Your task to perform on an android device: Open Google Chrome and click the shortcut for Amazon.com Image 0: 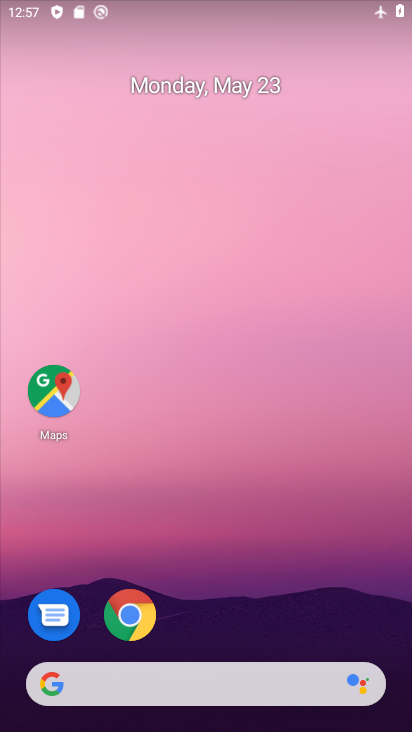
Step 0: click (166, 601)
Your task to perform on an android device: Open Google Chrome and click the shortcut for Amazon.com Image 1: 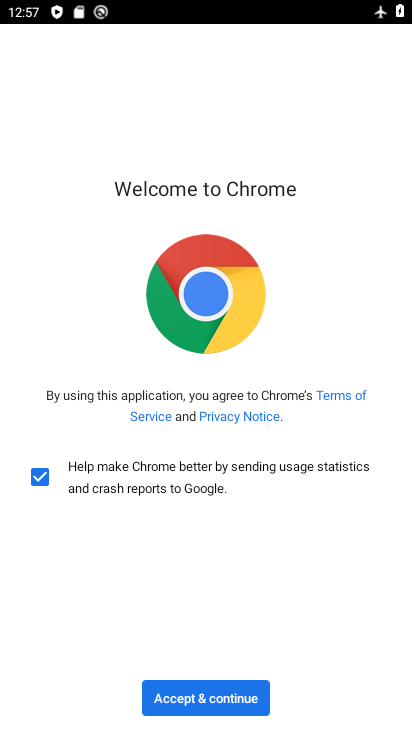
Step 1: click (165, 706)
Your task to perform on an android device: Open Google Chrome and click the shortcut for Amazon.com Image 2: 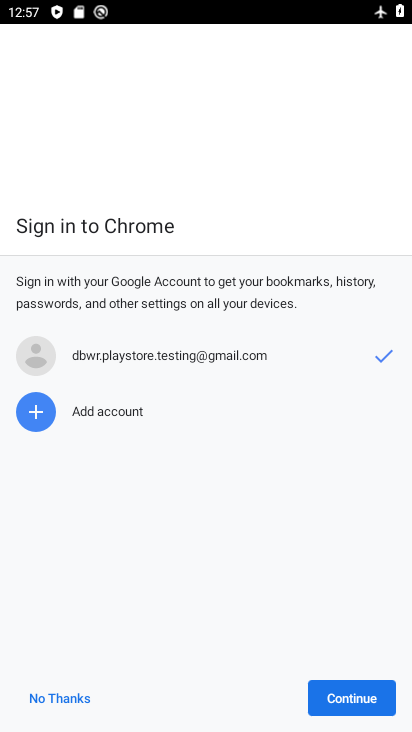
Step 2: click (345, 699)
Your task to perform on an android device: Open Google Chrome and click the shortcut for Amazon.com Image 3: 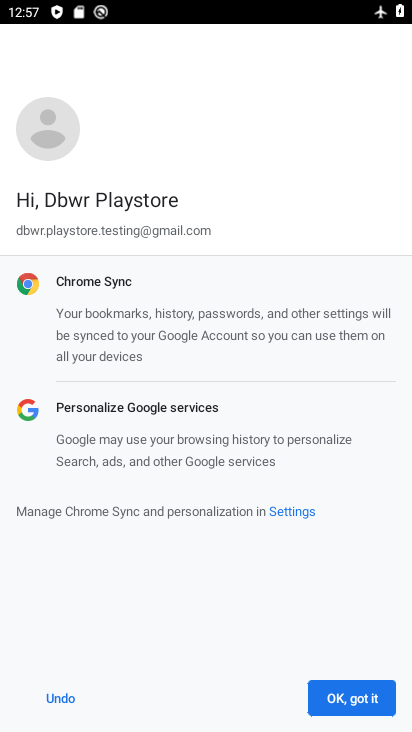
Step 3: click (345, 699)
Your task to perform on an android device: Open Google Chrome and click the shortcut for Amazon.com Image 4: 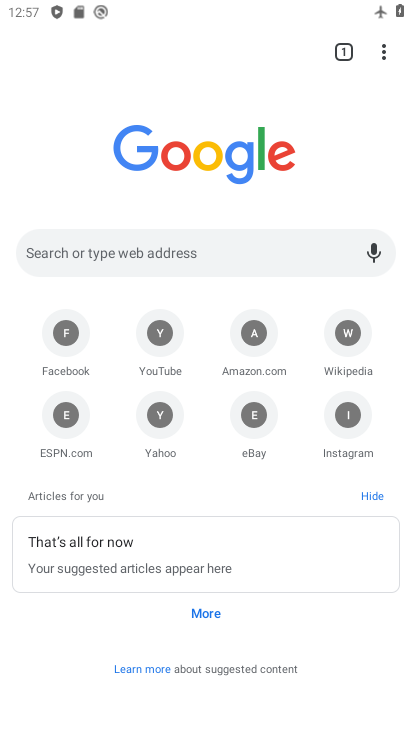
Step 4: click (249, 339)
Your task to perform on an android device: Open Google Chrome and click the shortcut for Amazon.com Image 5: 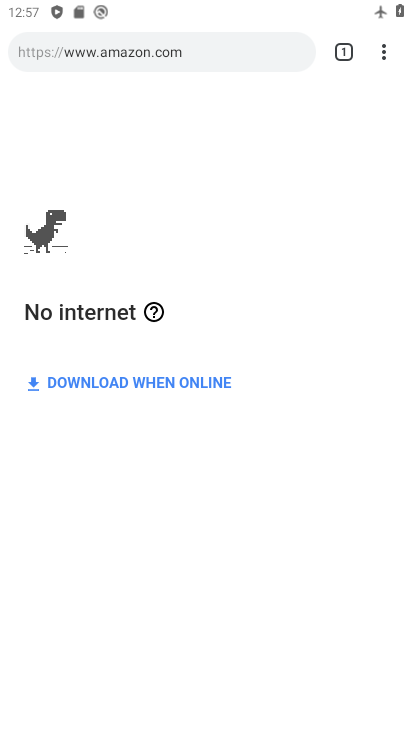
Step 5: task complete